Your task to perform on an android device: open chrome privacy settings Image 0: 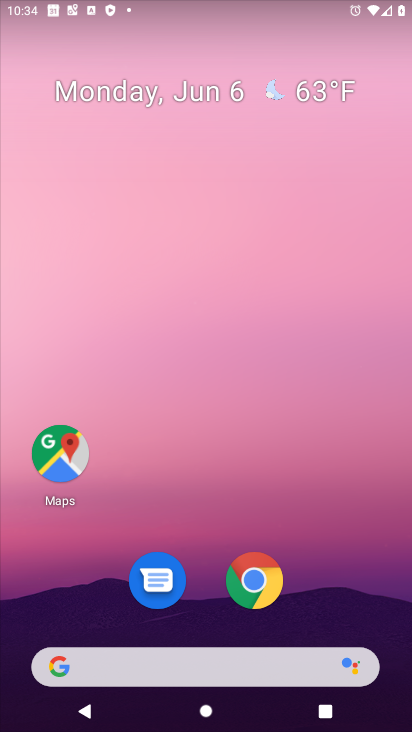
Step 0: drag from (210, 151) to (176, 16)
Your task to perform on an android device: open chrome privacy settings Image 1: 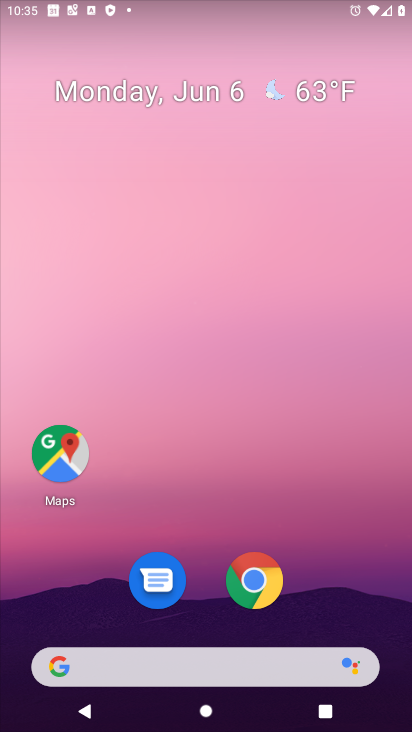
Step 1: drag from (328, 532) to (344, 0)
Your task to perform on an android device: open chrome privacy settings Image 2: 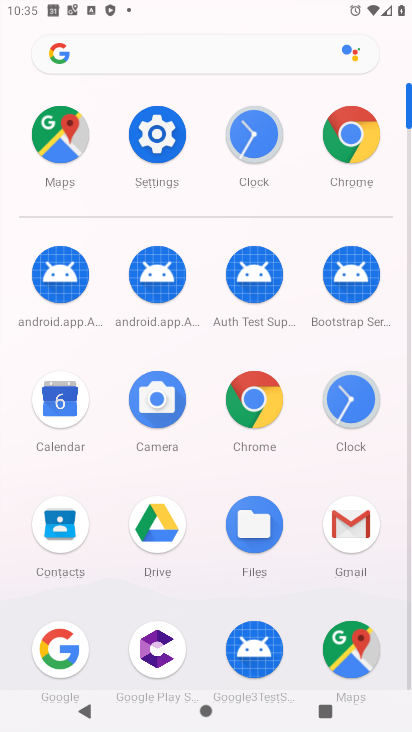
Step 2: click (179, 132)
Your task to perform on an android device: open chrome privacy settings Image 3: 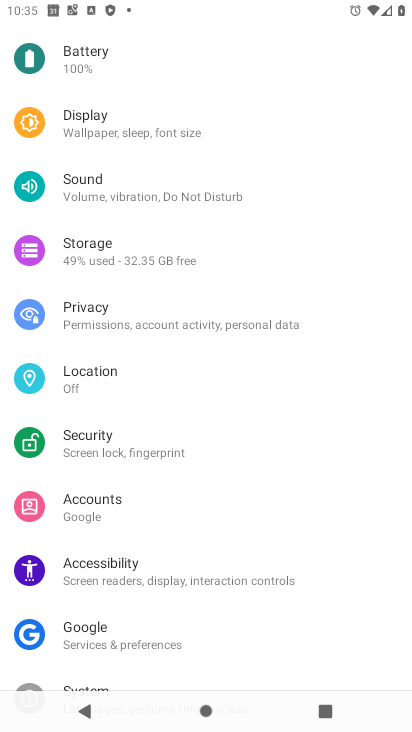
Step 3: click (127, 313)
Your task to perform on an android device: open chrome privacy settings Image 4: 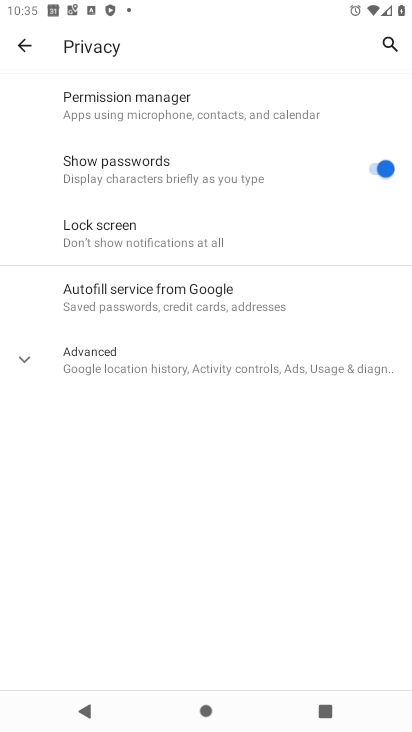
Step 4: task complete